Your task to perform on an android device: Go to Yahoo.com Image 0: 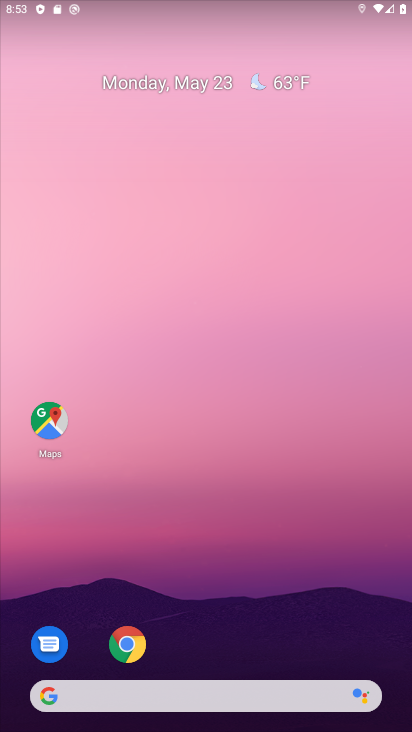
Step 0: click (126, 636)
Your task to perform on an android device: Go to Yahoo.com Image 1: 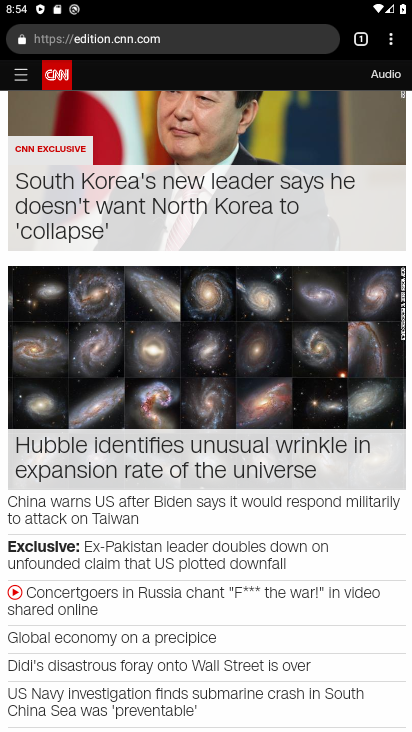
Step 1: click (361, 36)
Your task to perform on an android device: Go to Yahoo.com Image 2: 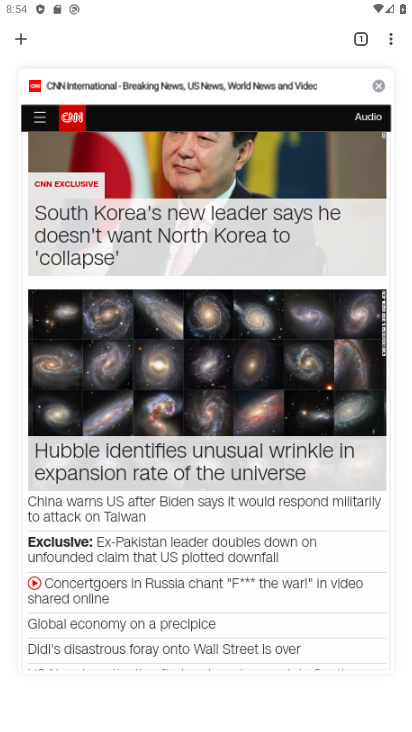
Step 2: click (378, 84)
Your task to perform on an android device: Go to Yahoo.com Image 3: 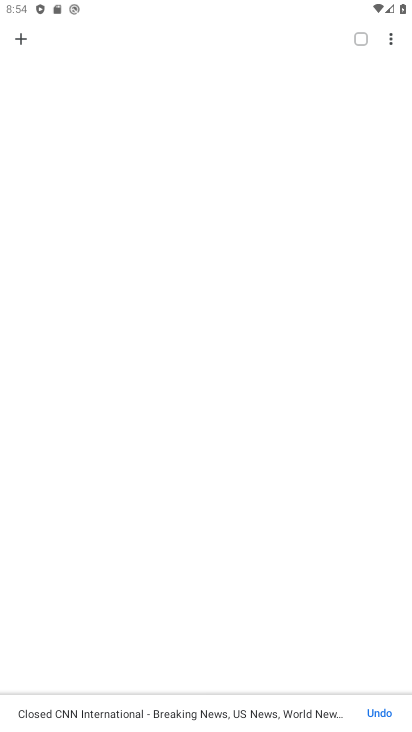
Step 3: click (24, 37)
Your task to perform on an android device: Go to Yahoo.com Image 4: 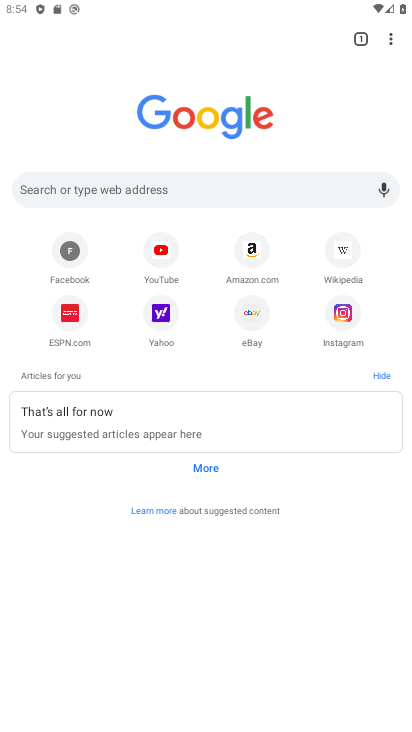
Step 4: click (157, 308)
Your task to perform on an android device: Go to Yahoo.com Image 5: 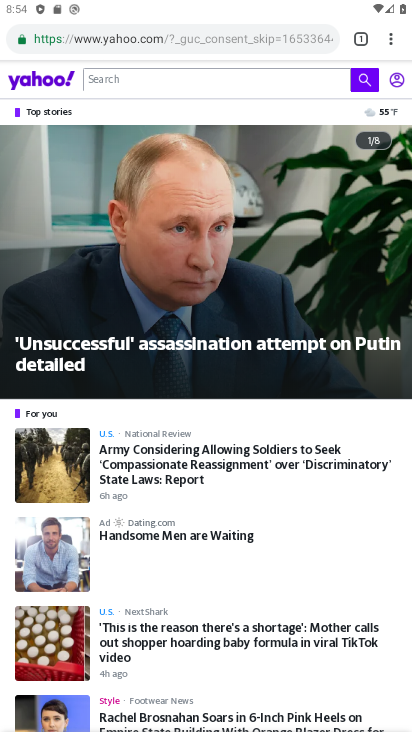
Step 5: task complete